Your task to perform on an android device: Search for seafood restaurants on Google Maps Image 0: 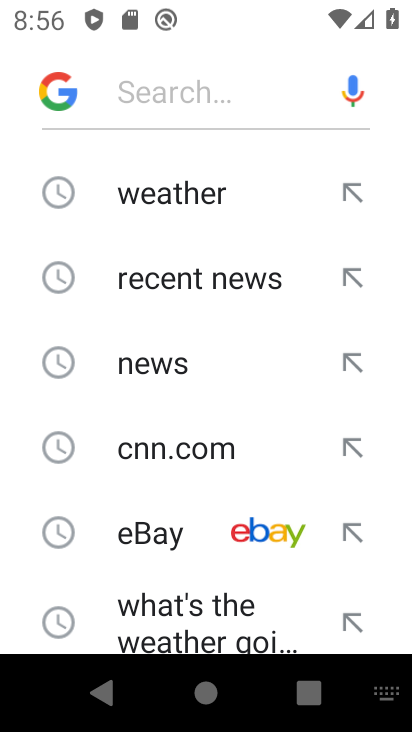
Step 0: press home button
Your task to perform on an android device: Search for seafood restaurants on Google Maps Image 1: 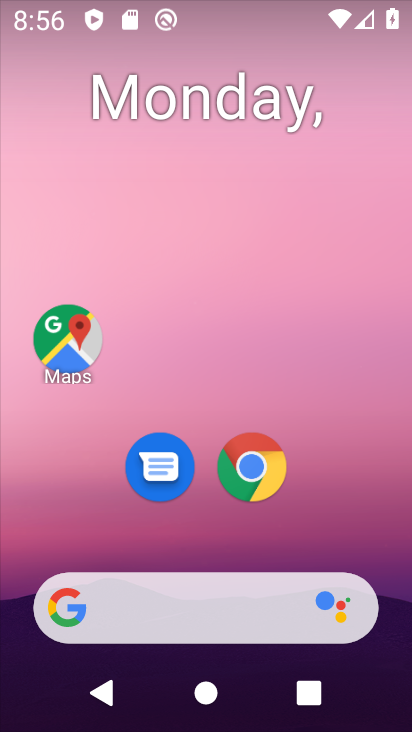
Step 1: click (65, 334)
Your task to perform on an android device: Search for seafood restaurants on Google Maps Image 2: 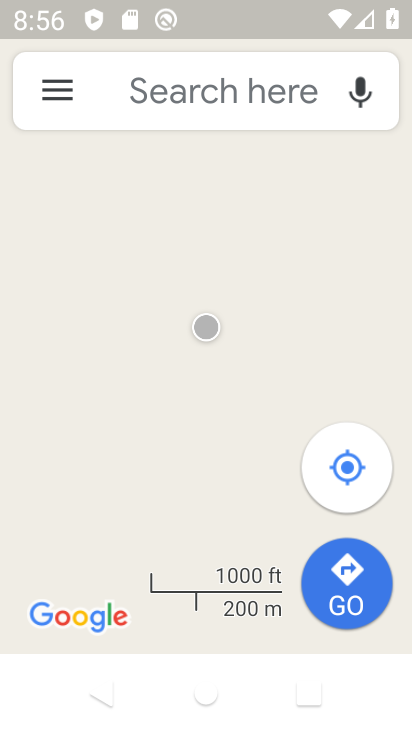
Step 2: click (174, 84)
Your task to perform on an android device: Search for seafood restaurants on Google Maps Image 3: 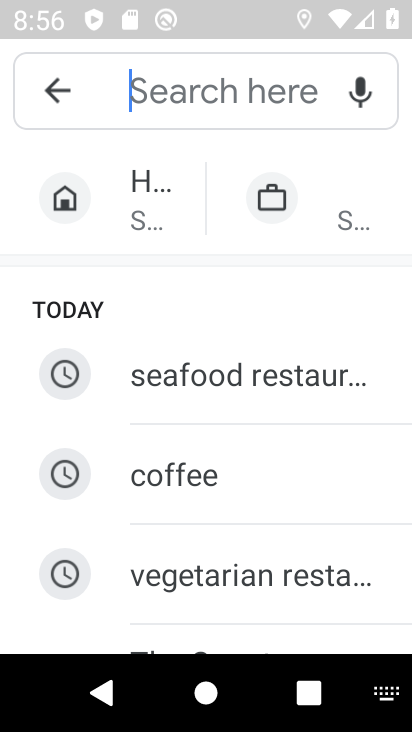
Step 3: click (307, 396)
Your task to perform on an android device: Search for seafood restaurants on Google Maps Image 4: 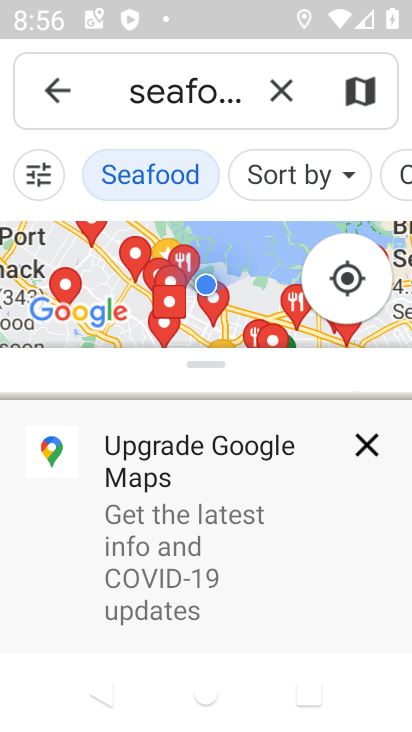
Step 4: task complete